Your task to perform on an android device: Open my contact list Image 0: 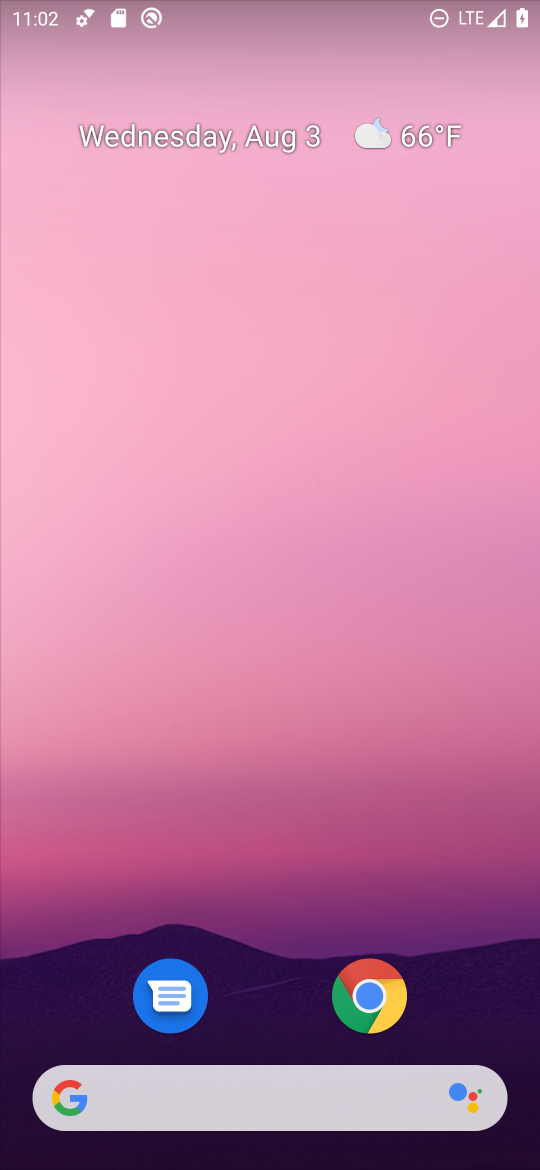
Step 0: drag from (280, 751) to (344, 0)
Your task to perform on an android device: Open my contact list Image 1: 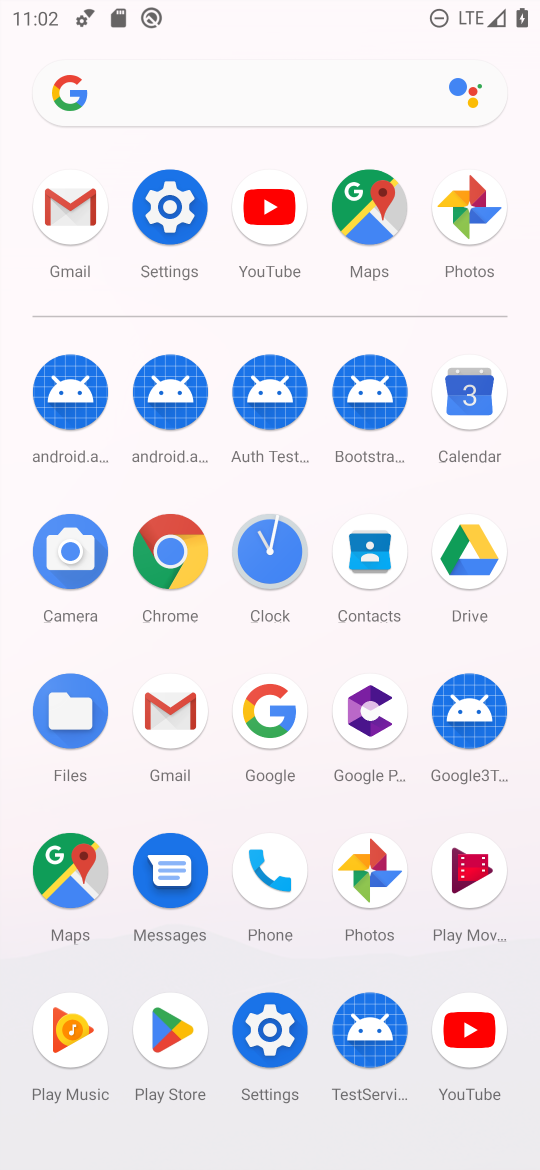
Step 1: click (366, 561)
Your task to perform on an android device: Open my contact list Image 2: 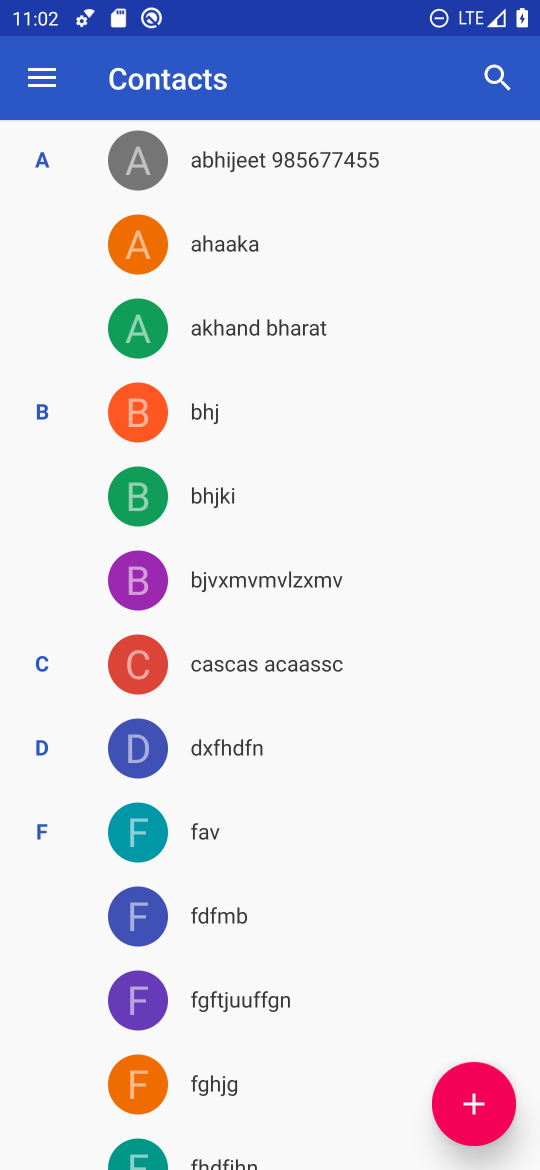
Step 2: task complete